Your task to perform on an android device: turn on bluetooth scan Image 0: 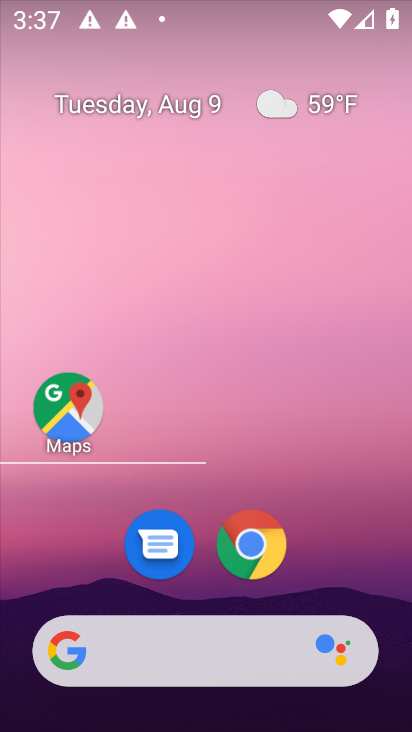
Step 0: drag from (220, 254) to (233, 170)
Your task to perform on an android device: turn on bluetooth scan Image 1: 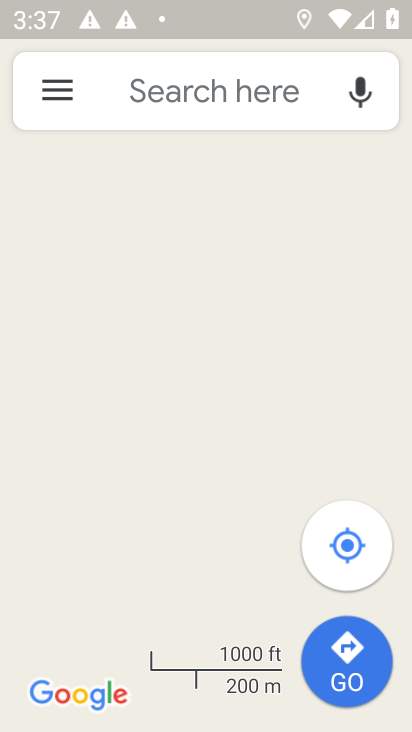
Step 1: press home button
Your task to perform on an android device: turn on bluetooth scan Image 2: 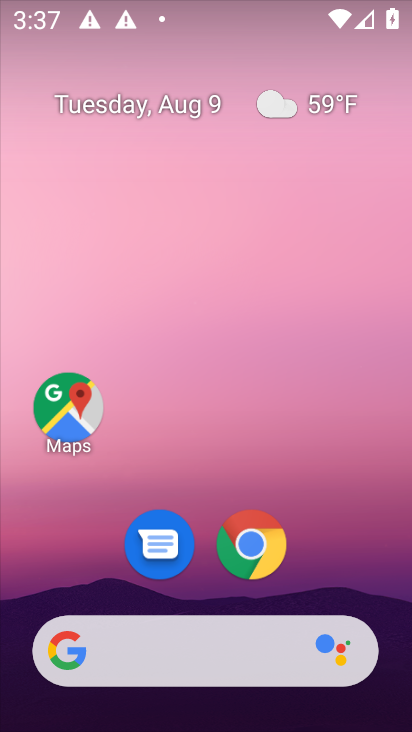
Step 2: drag from (181, 608) to (180, 117)
Your task to perform on an android device: turn on bluetooth scan Image 3: 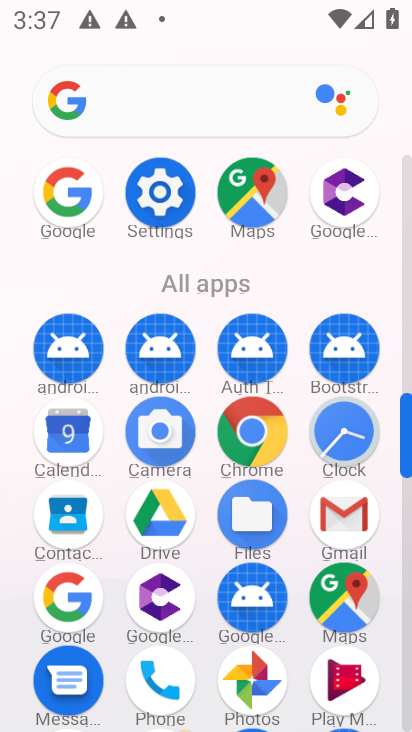
Step 3: click (167, 196)
Your task to perform on an android device: turn on bluetooth scan Image 4: 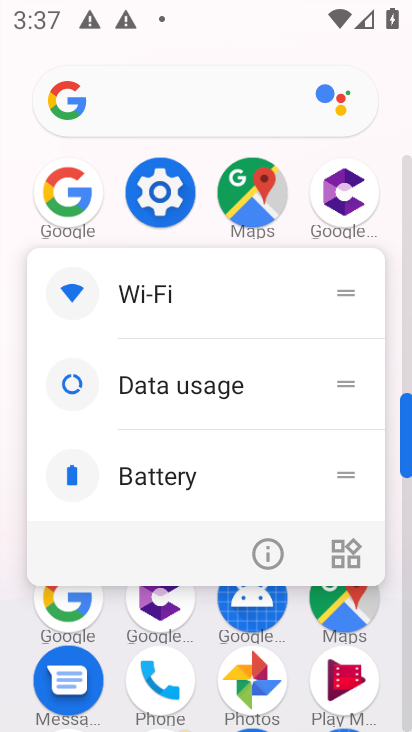
Step 4: click (159, 202)
Your task to perform on an android device: turn on bluetooth scan Image 5: 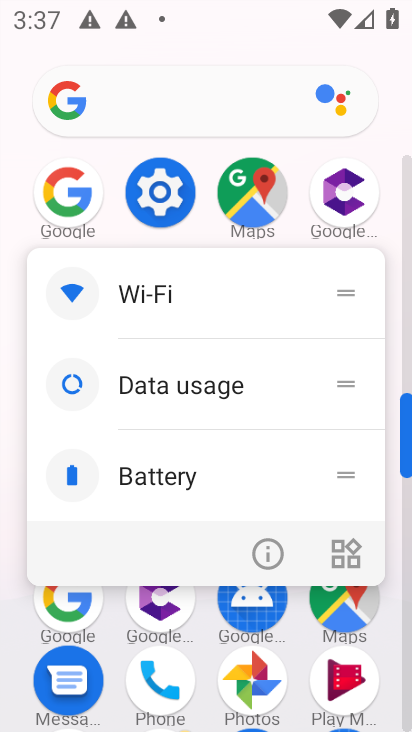
Step 5: click (159, 195)
Your task to perform on an android device: turn on bluetooth scan Image 6: 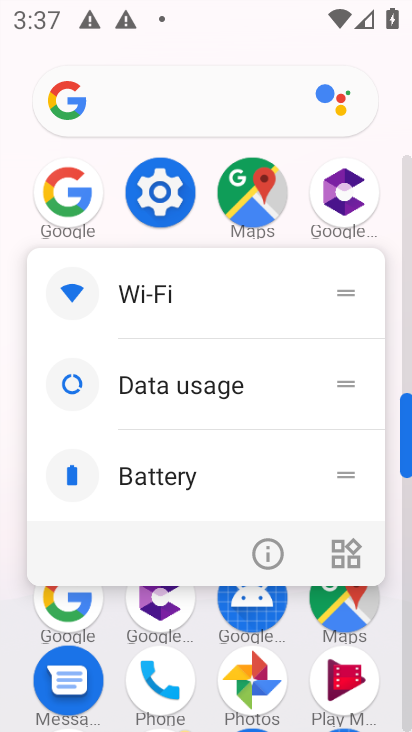
Step 6: click (163, 185)
Your task to perform on an android device: turn on bluetooth scan Image 7: 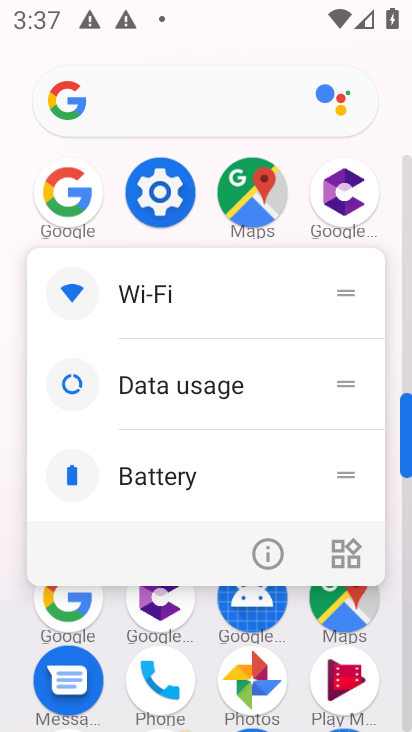
Step 7: click (160, 196)
Your task to perform on an android device: turn on bluetooth scan Image 8: 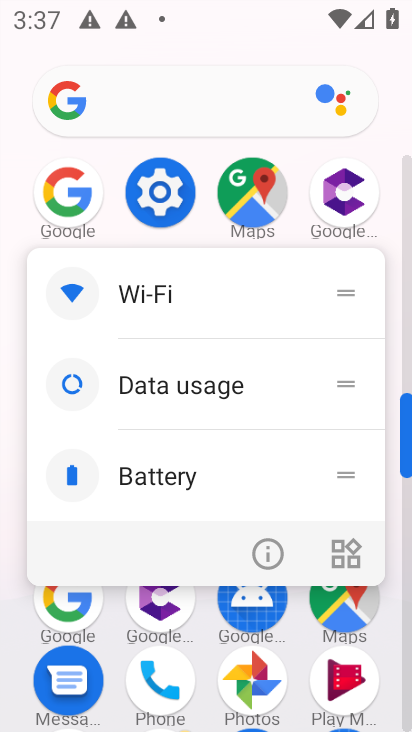
Step 8: click (165, 201)
Your task to perform on an android device: turn on bluetooth scan Image 9: 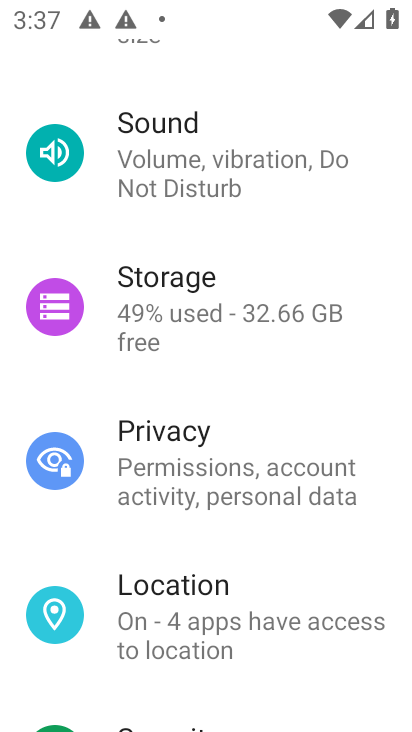
Step 9: click (209, 606)
Your task to perform on an android device: turn on bluetooth scan Image 10: 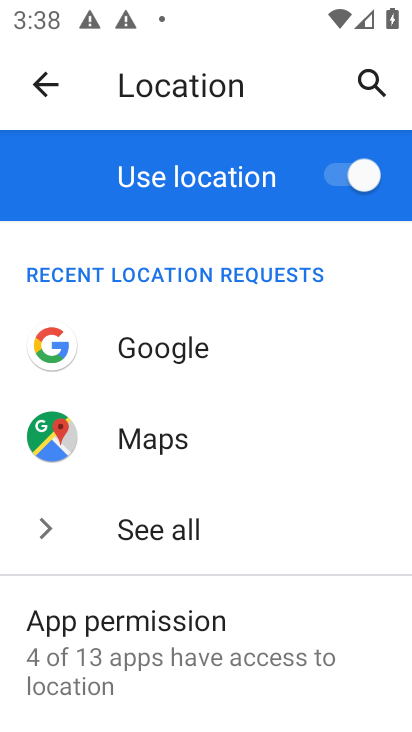
Step 10: drag from (185, 712) to (173, 270)
Your task to perform on an android device: turn on bluetooth scan Image 11: 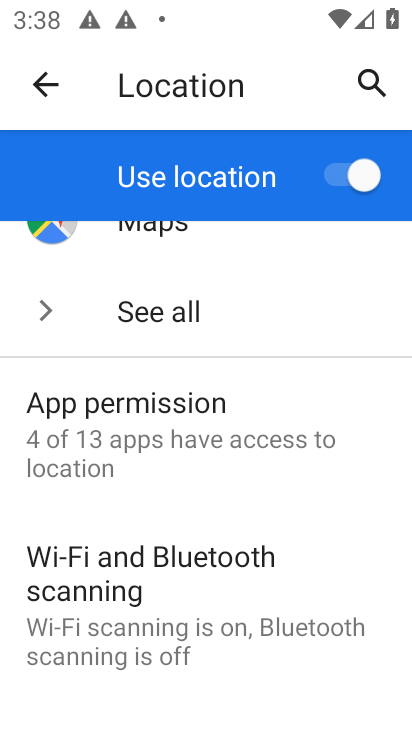
Step 11: click (113, 605)
Your task to perform on an android device: turn on bluetooth scan Image 12: 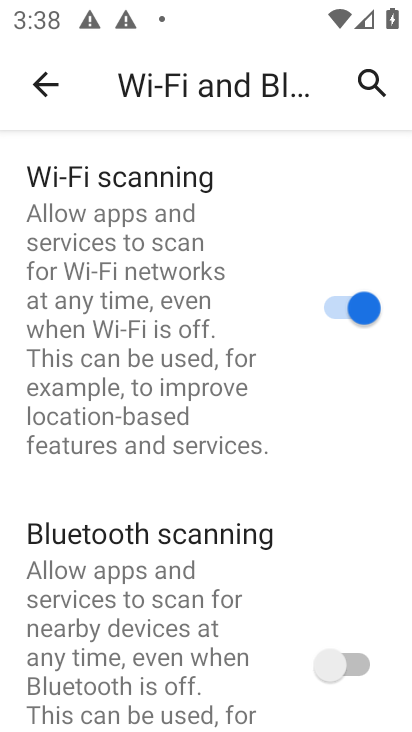
Step 12: click (359, 670)
Your task to perform on an android device: turn on bluetooth scan Image 13: 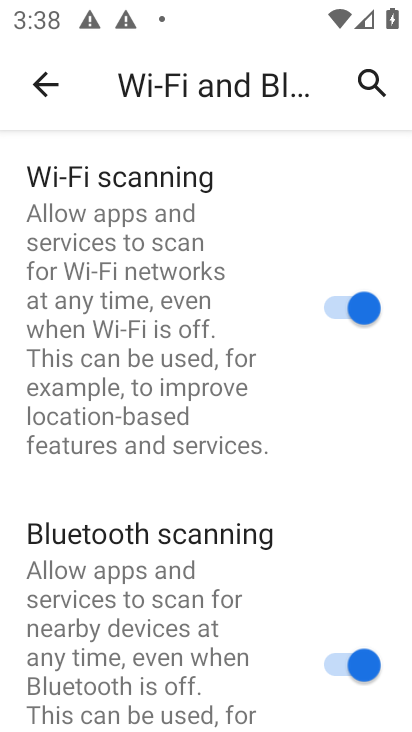
Step 13: task complete